Your task to perform on an android device: change your default location settings in chrome Image 0: 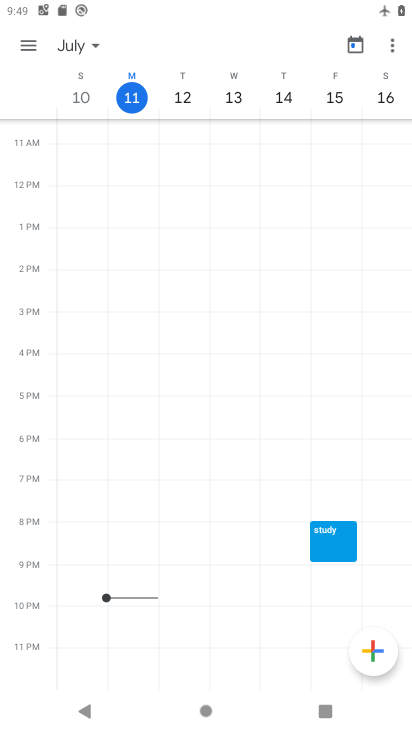
Step 0: press home button
Your task to perform on an android device: change your default location settings in chrome Image 1: 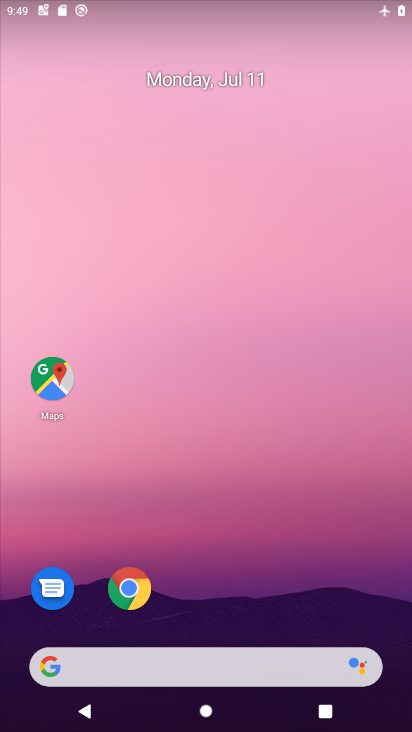
Step 1: drag from (218, 640) to (185, 48)
Your task to perform on an android device: change your default location settings in chrome Image 2: 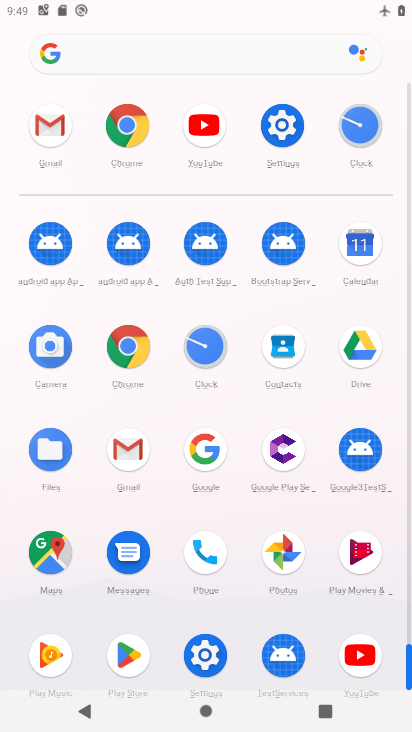
Step 2: click (131, 112)
Your task to perform on an android device: change your default location settings in chrome Image 3: 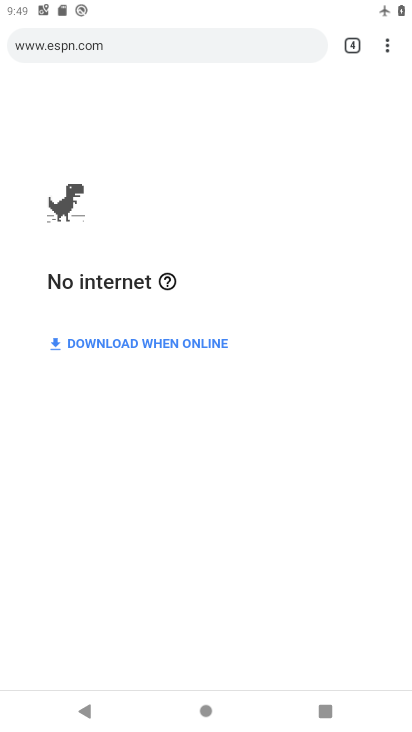
Step 3: click (388, 48)
Your task to perform on an android device: change your default location settings in chrome Image 4: 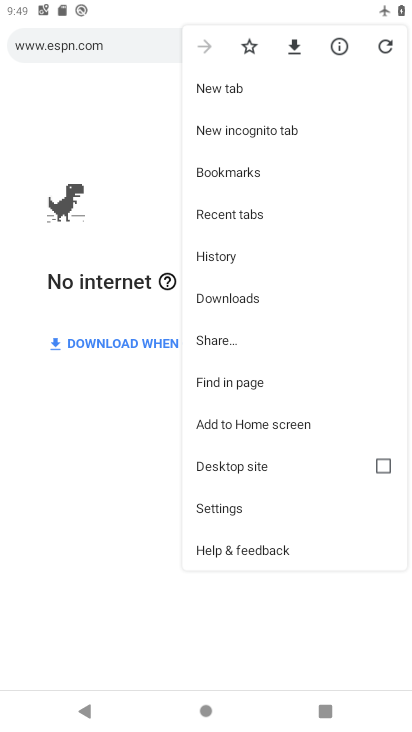
Step 4: click (226, 508)
Your task to perform on an android device: change your default location settings in chrome Image 5: 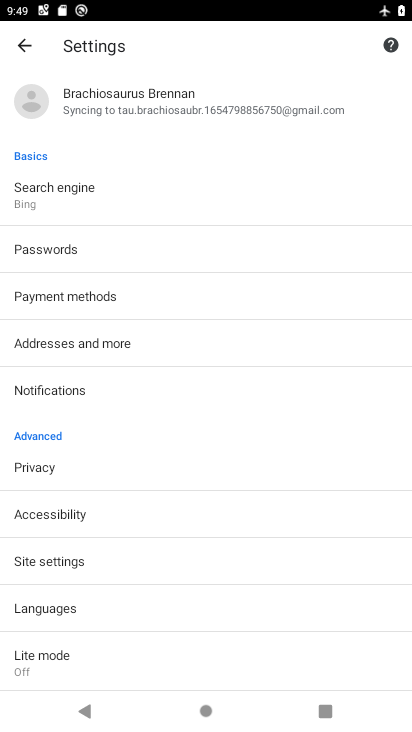
Step 5: drag from (101, 624) to (140, 382)
Your task to perform on an android device: change your default location settings in chrome Image 6: 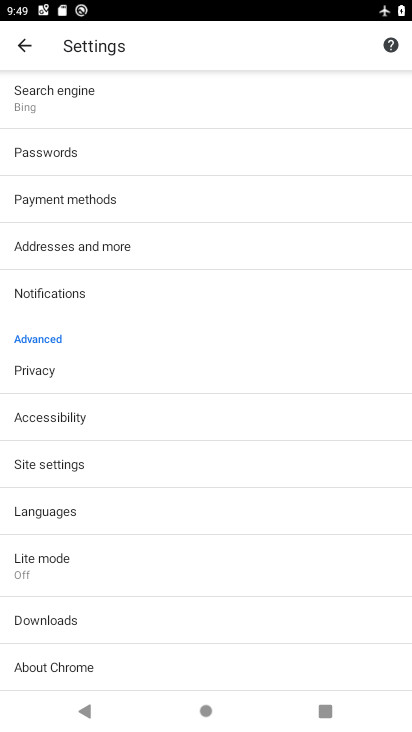
Step 6: drag from (156, 615) to (161, 242)
Your task to perform on an android device: change your default location settings in chrome Image 7: 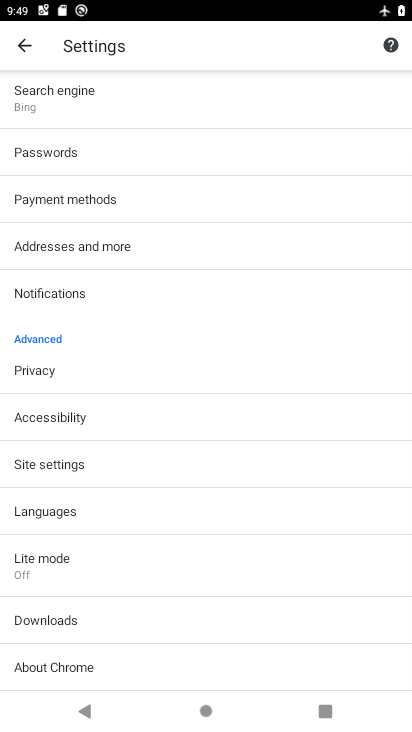
Step 7: drag from (131, 189) to (129, 665)
Your task to perform on an android device: change your default location settings in chrome Image 8: 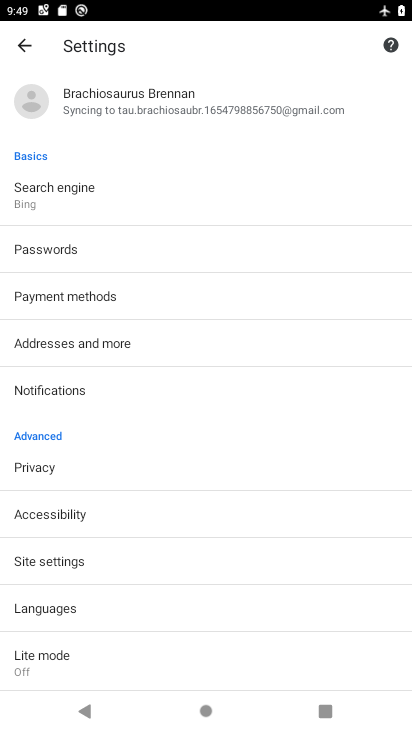
Step 8: click (68, 556)
Your task to perform on an android device: change your default location settings in chrome Image 9: 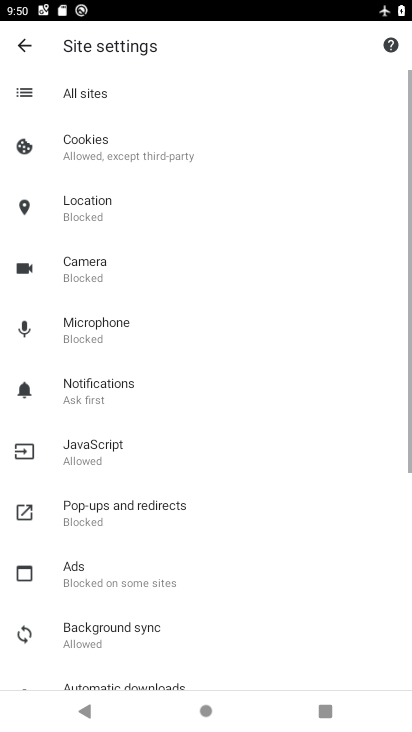
Step 9: click (90, 193)
Your task to perform on an android device: change your default location settings in chrome Image 10: 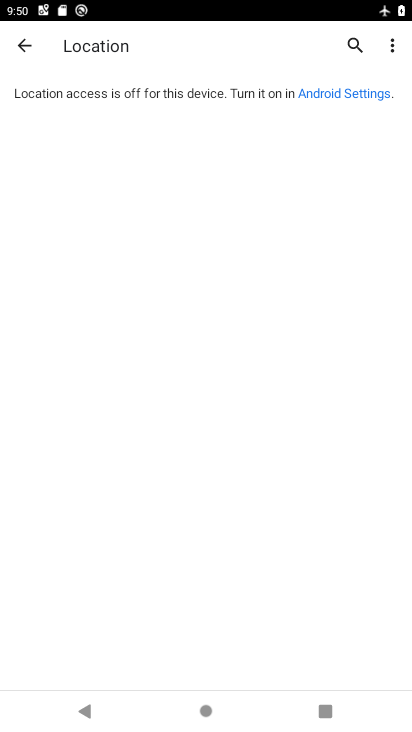
Step 10: task complete